Your task to perform on an android device: Go to Yahoo.com Image 0: 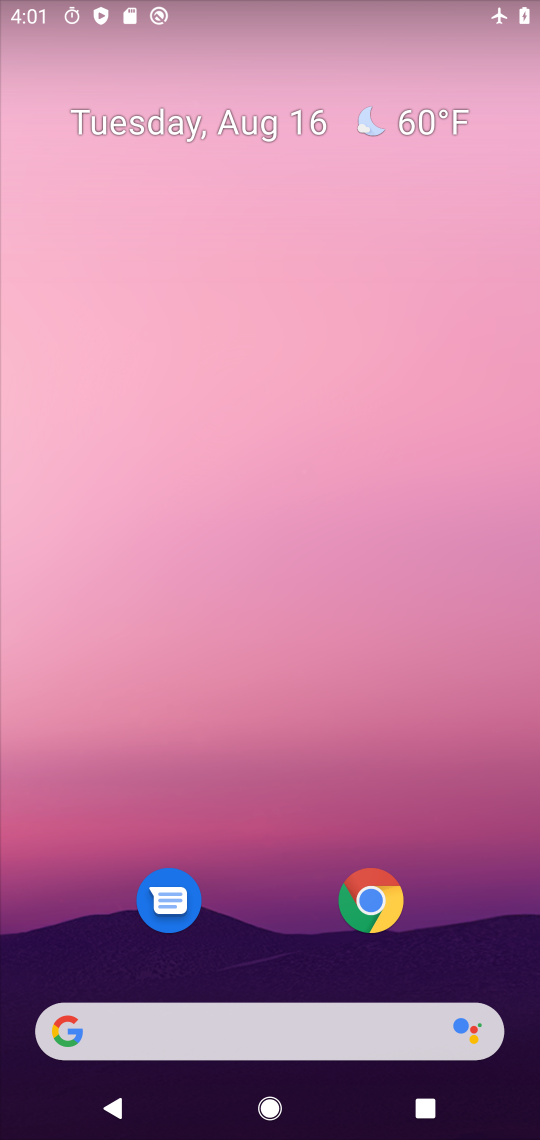
Step 0: click (368, 908)
Your task to perform on an android device: Go to Yahoo.com Image 1: 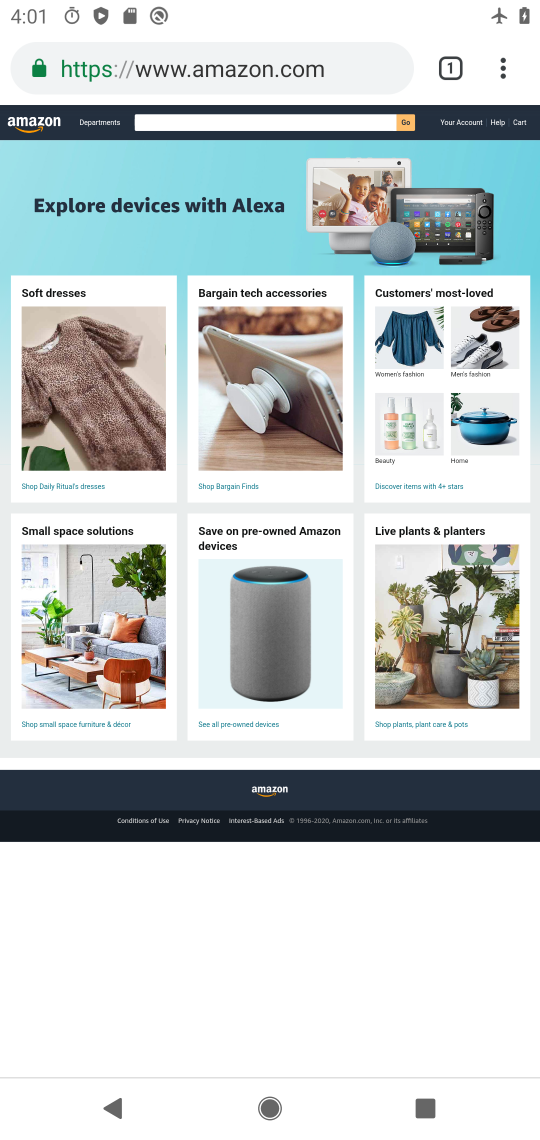
Step 1: click (506, 73)
Your task to perform on an android device: Go to Yahoo.com Image 2: 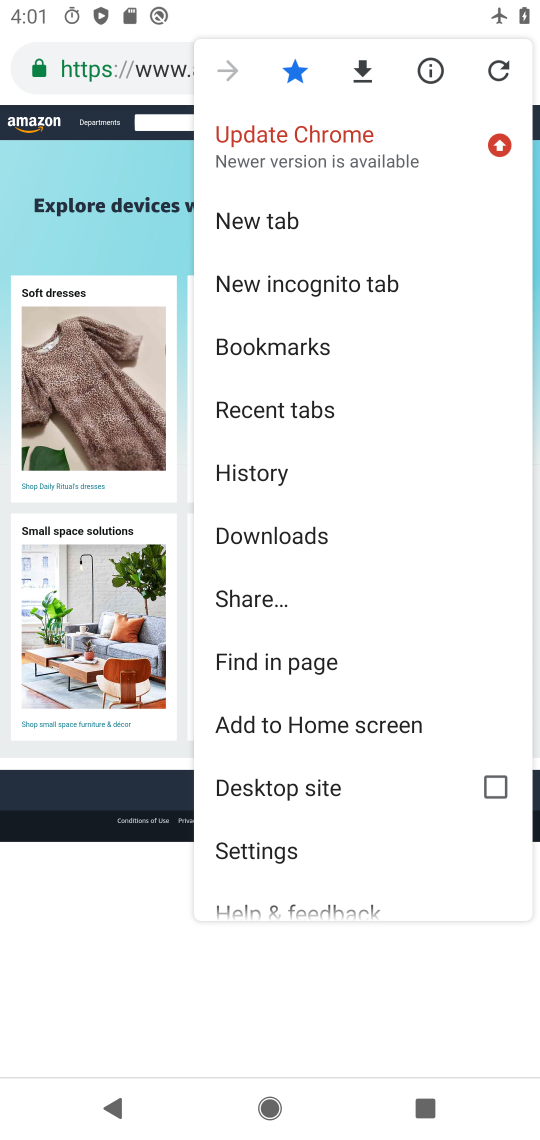
Step 2: click (244, 223)
Your task to perform on an android device: Go to Yahoo.com Image 3: 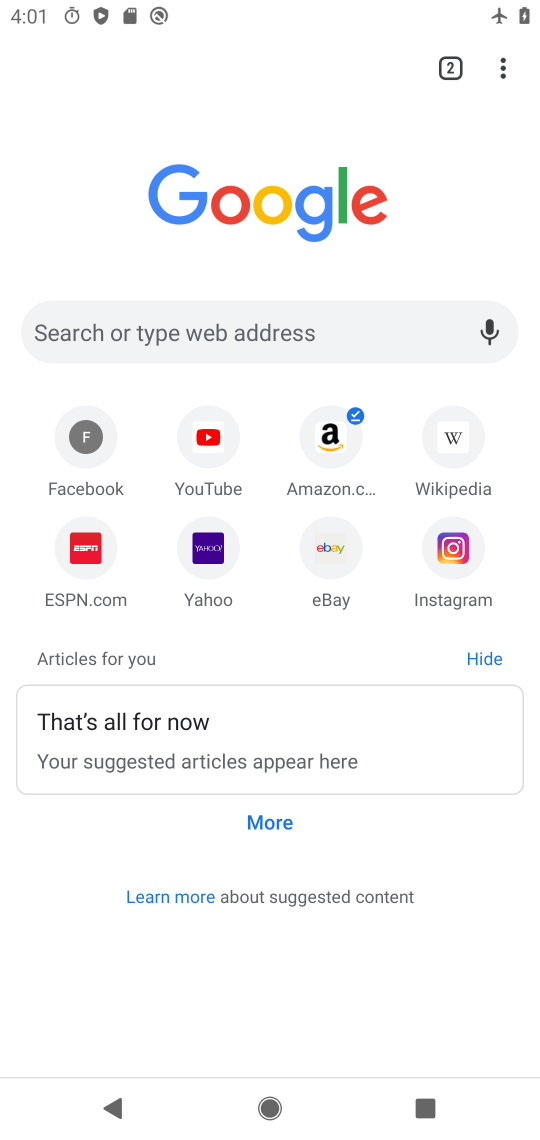
Step 3: click (213, 557)
Your task to perform on an android device: Go to Yahoo.com Image 4: 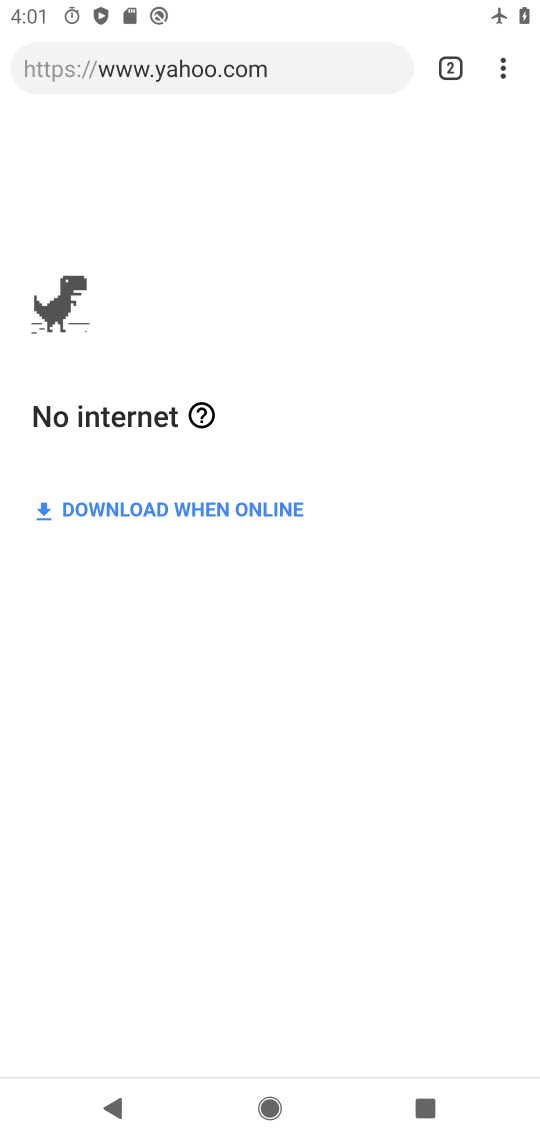
Step 4: task complete